Your task to perform on an android device: Open Android settings Image 0: 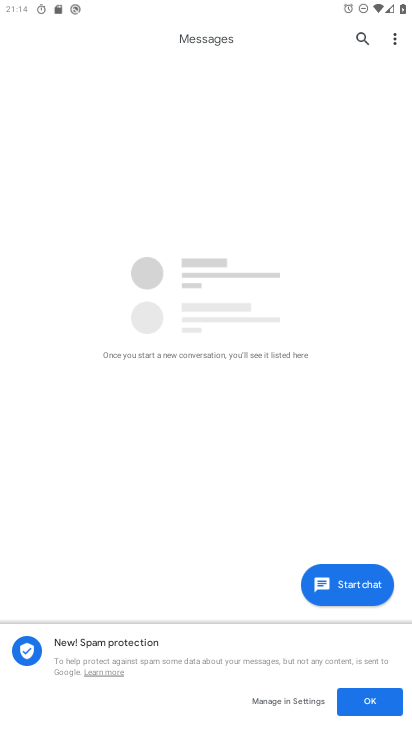
Step 0: press home button
Your task to perform on an android device: Open Android settings Image 1: 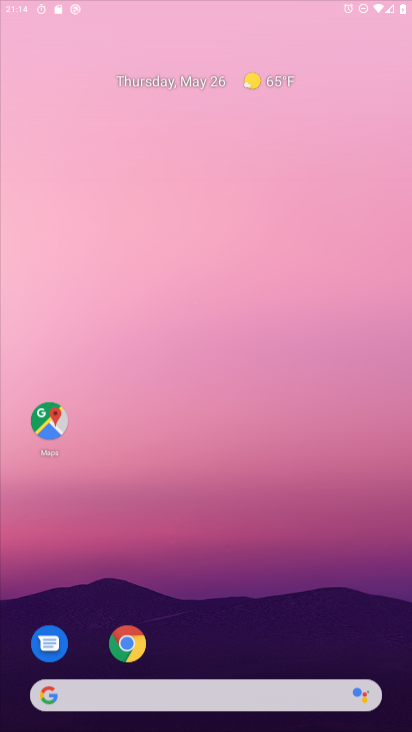
Step 1: drag from (212, 625) to (327, 103)
Your task to perform on an android device: Open Android settings Image 2: 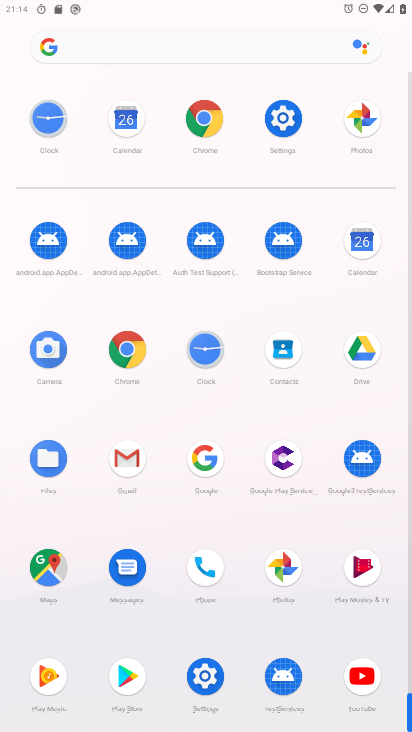
Step 2: click (292, 121)
Your task to perform on an android device: Open Android settings Image 3: 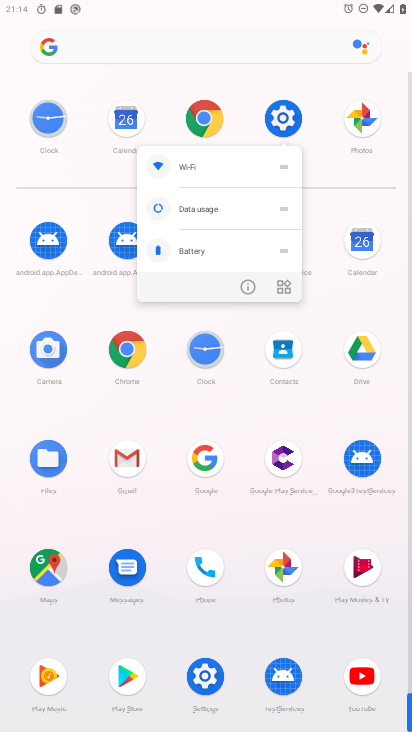
Step 3: click (235, 289)
Your task to perform on an android device: Open Android settings Image 4: 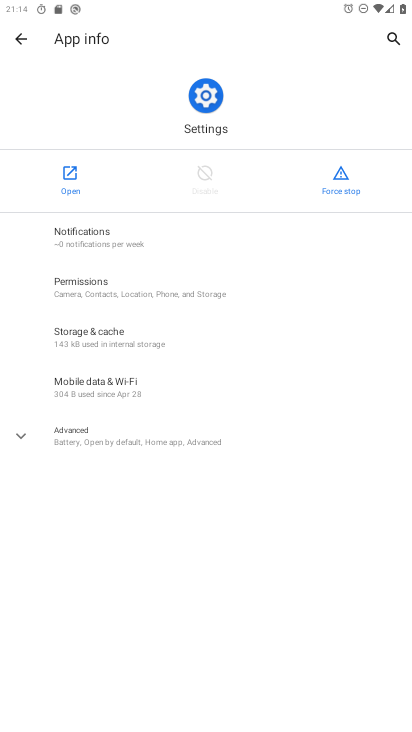
Step 4: click (74, 196)
Your task to perform on an android device: Open Android settings Image 5: 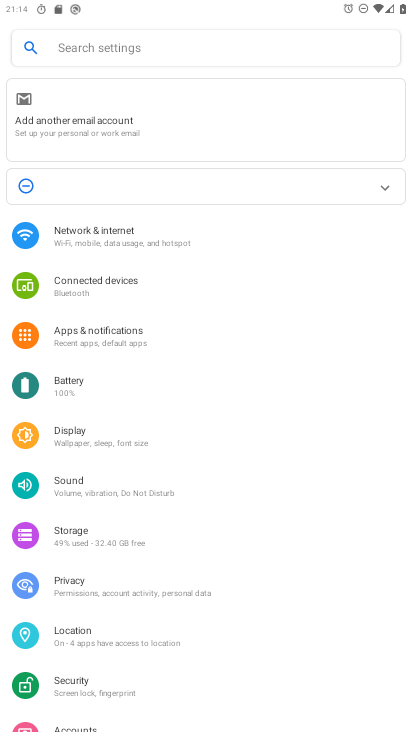
Step 5: drag from (180, 633) to (274, 231)
Your task to perform on an android device: Open Android settings Image 6: 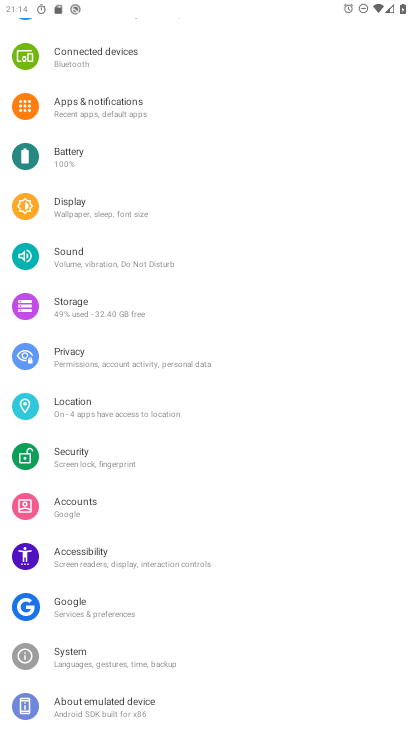
Step 6: drag from (156, 568) to (258, 20)
Your task to perform on an android device: Open Android settings Image 7: 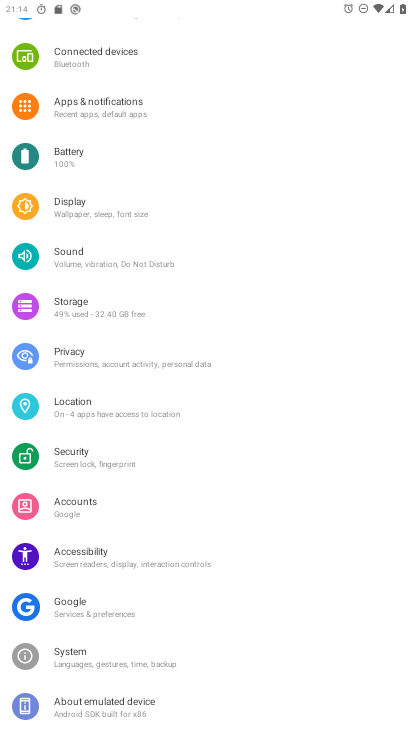
Step 7: drag from (140, 590) to (128, 456)
Your task to perform on an android device: Open Android settings Image 8: 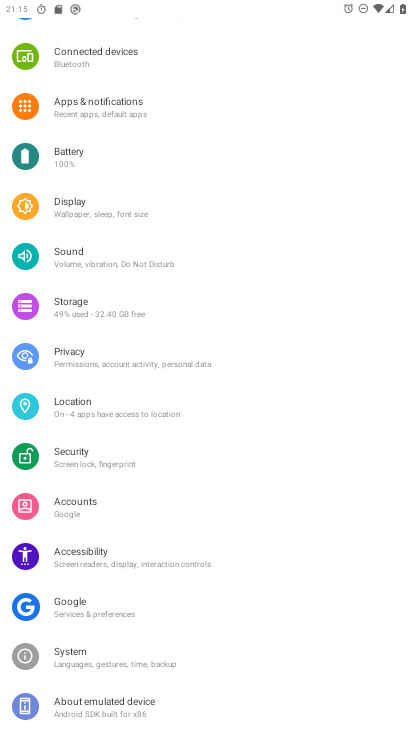
Step 8: drag from (133, 687) to (160, 422)
Your task to perform on an android device: Open Android settings Image 9: 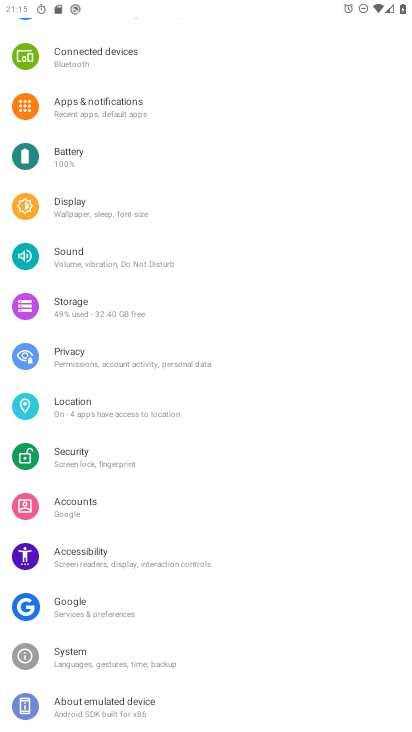
Step 9: click (183, 711)
Your task to perform on an android device: Open Android settings Image 10: 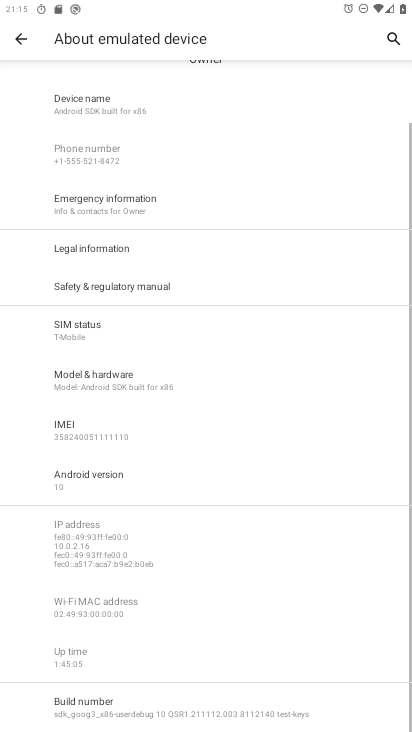
Step 10: click (114, 485)
Your task to perform on an android device: Open Android settings Image 11: 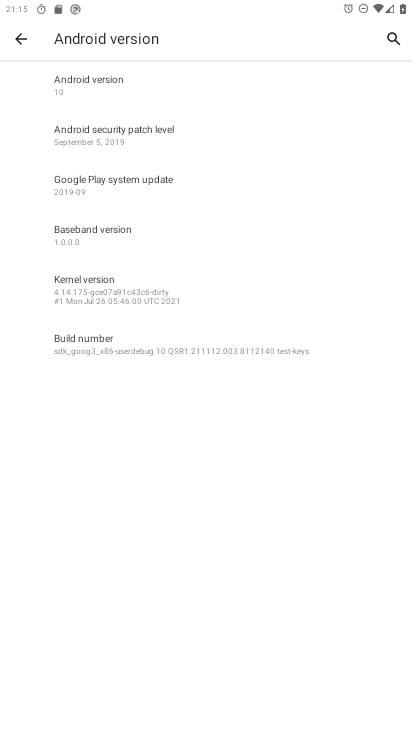
Step 11: task complete